Your task to perform on an android device: Go to Yahoo.com Image 0: 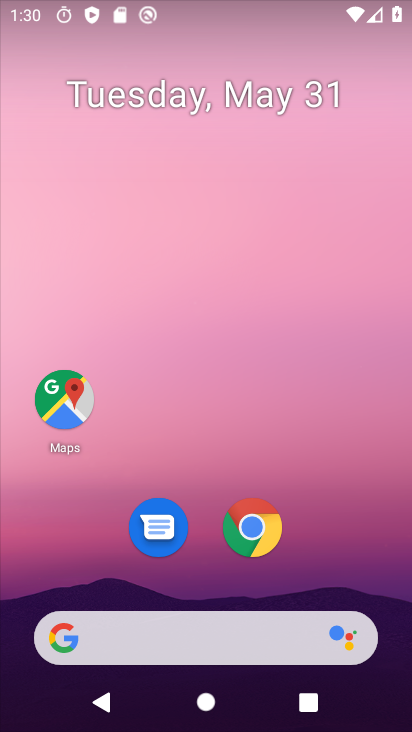
Step 0: click (256, 526)
Your task to perform on an android device: Go to Yahoo.com Image 1: 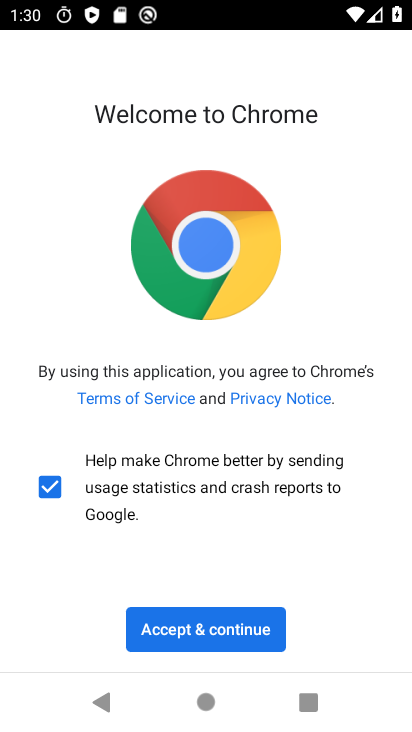
Step 1: click (231, 639)
Your task to perform on an android device: Go to Yahoo.com Image 2: 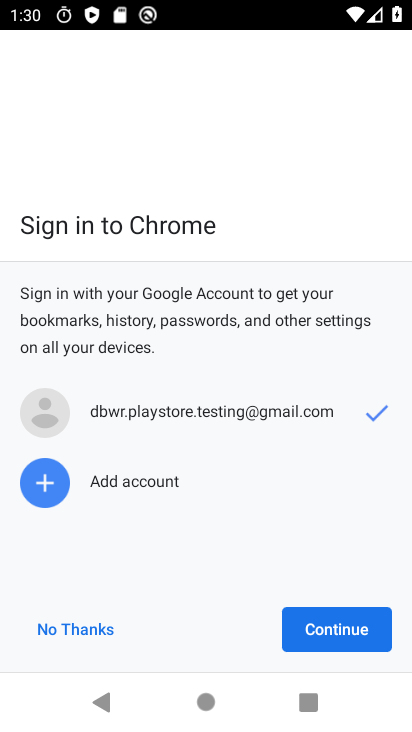
Step 2: click (342, 624)
Your task to perform on an android device: Go to Yahoo.com Image 3: 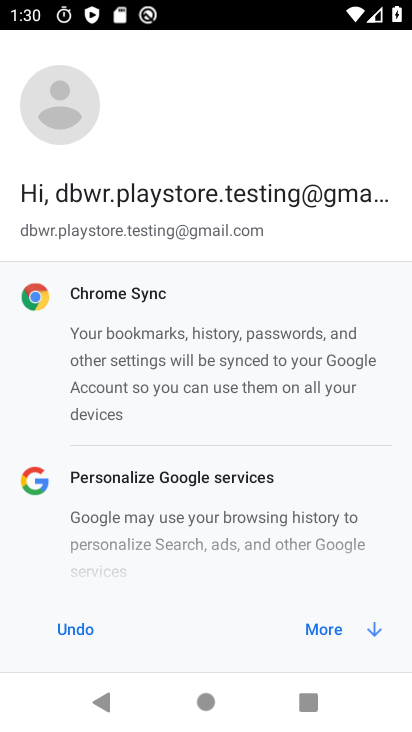
Step 3: click (348, 641)
Your task to perform on an android device: Go to Yahoo.com Image 4: 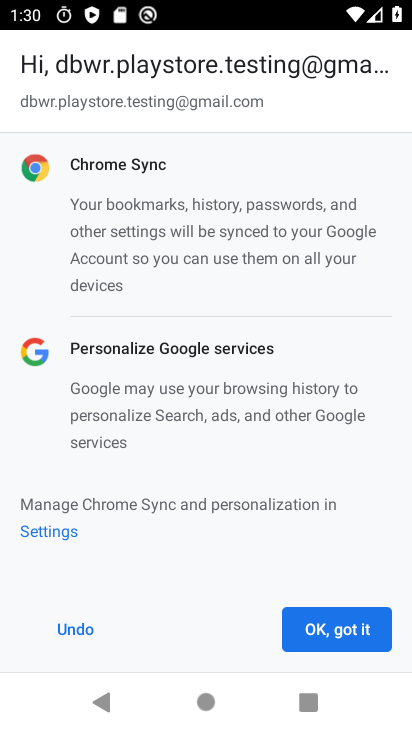
Step 4: click (350, 642)
Your task to perform on an android device: Go to Yahoo.com Image 5: 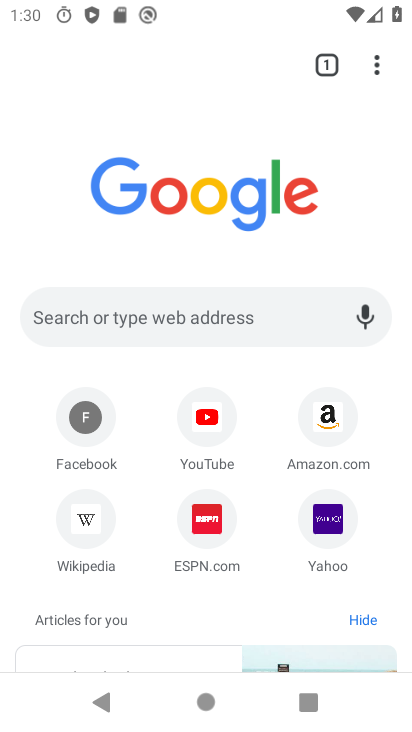
Step 5: click (330, 530)
Your task to perform on an android device: Go to Yahoo.com Image 6: 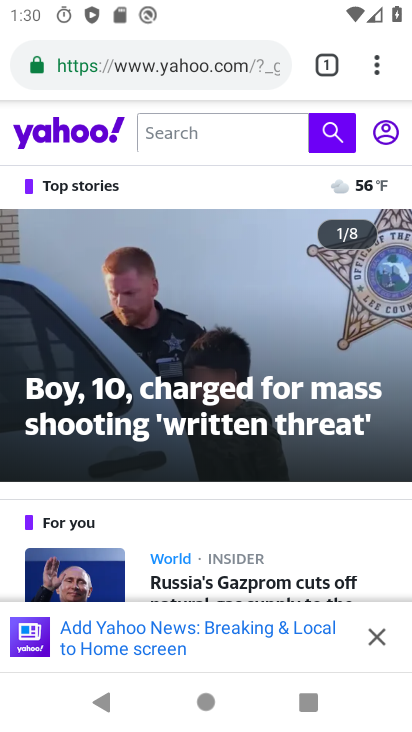
Step 6: task complete